Your task to perform on an android device: Go to sound settings Image 0: 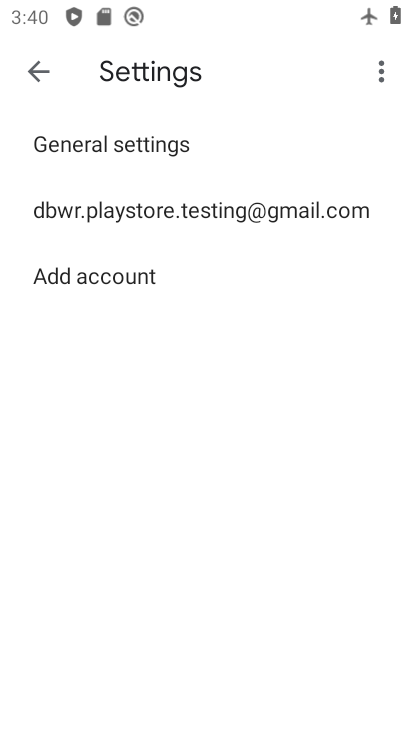
Step 0: press home button
Your task to perform on an android device: Go to sound settings Image 1: 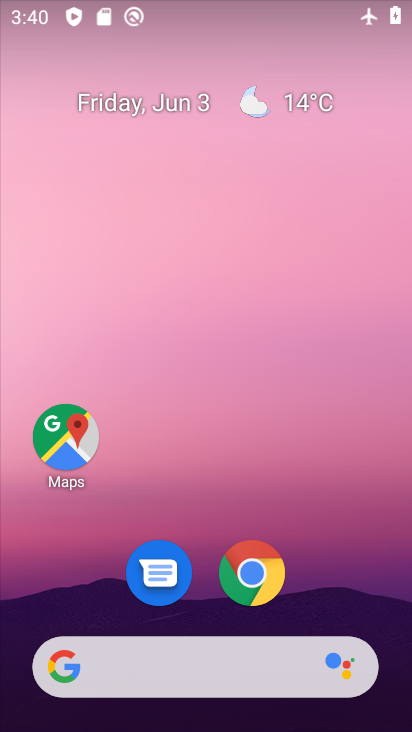
Step 1: drag from (240, 622) to (293, 105)
Your task to perform on an android device: Go to sound settings Image 2: 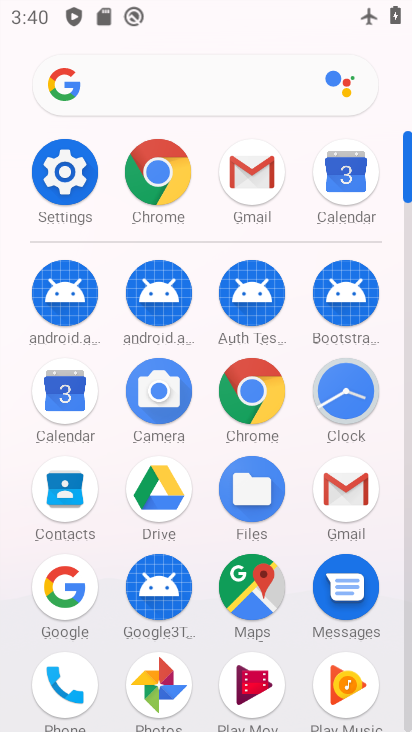
Step 2: click (78, 179)
Your task to perform on an android device: Go to sound settings Image 3: 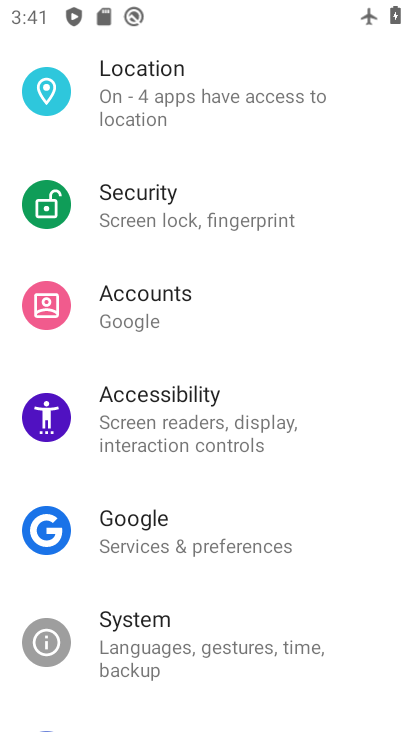
Step 3: drag from (211, 260) to (217, 607)
Your task to perform on an android device: Go to sound settings Image 4: 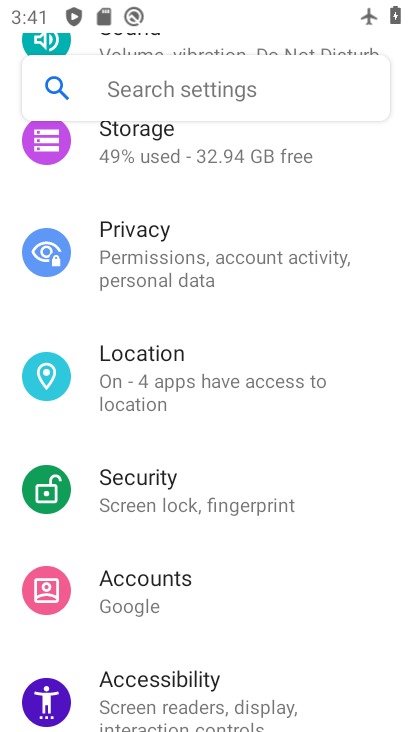
Step 4: drag from (212, 350) to (212, 471)
Your task to perform on an android device: Go to sound settings Image 5: 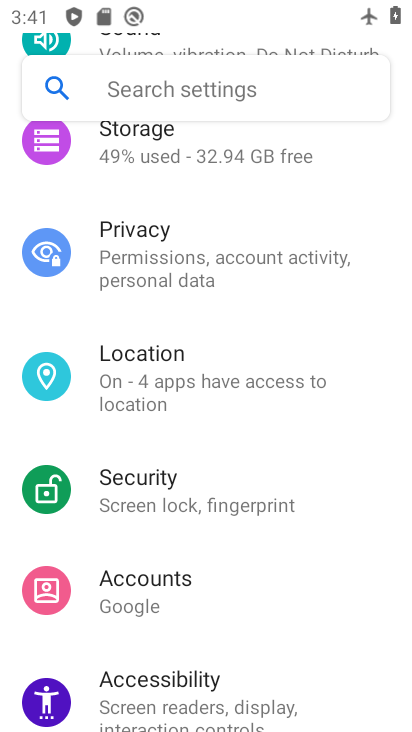
Step 5: click (212, 573)
Your task to perform on an android device: Go to sound settings Image 6: 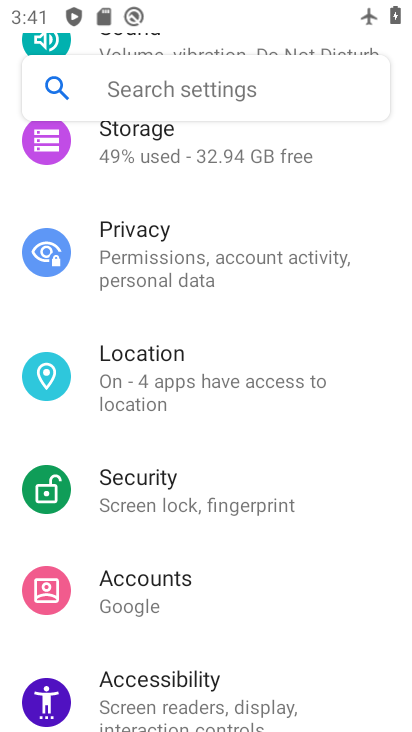
Step 6: drag from (238, 287) to (181, 650)
Your task to perform on an android device: Go to sound settings Image 7: 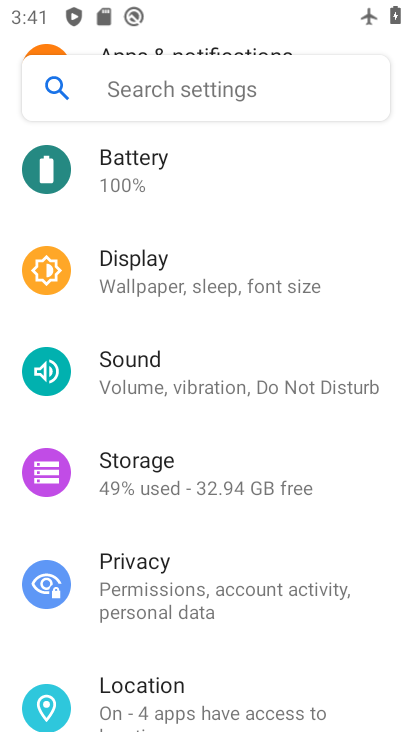
Step 7: click (173, 361)
Your task to perform on an android device: Go to sound settings Image 8: 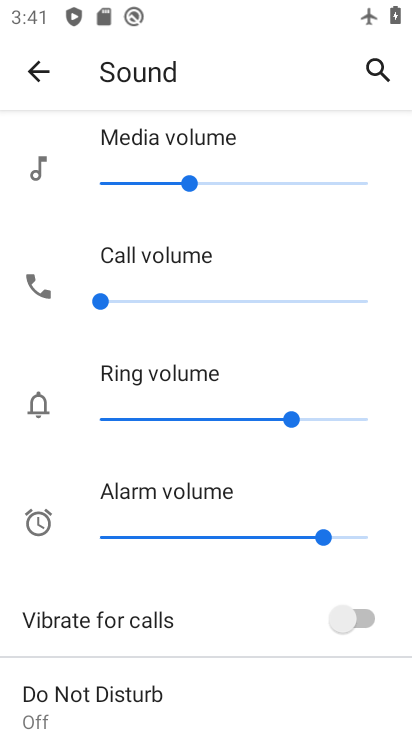
Step 8: task complete